Your task to perform on an android device: Open Google Chrome and open the bookmarks view Image 0: 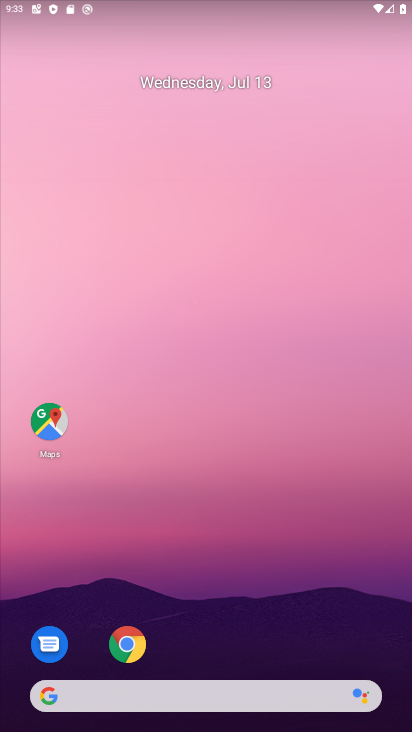
Step 0: click (133, 647)
Your task to perform on an android device: Open Google Chrome and open the bookmarks view Image 1: 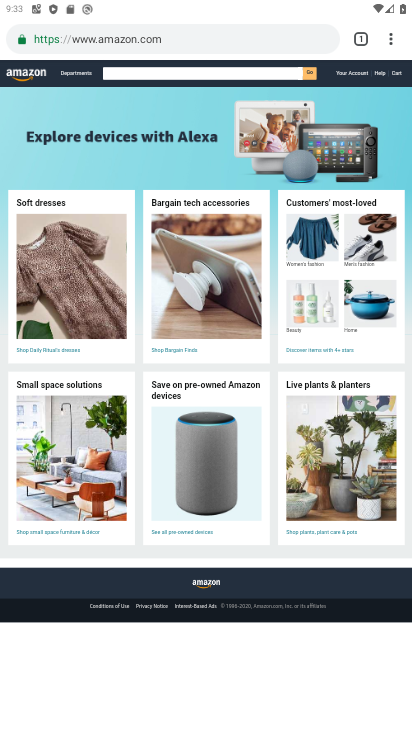
Step 1: task complete